Your task to perform on an android device: Open Maps and search for coffee Image 0: 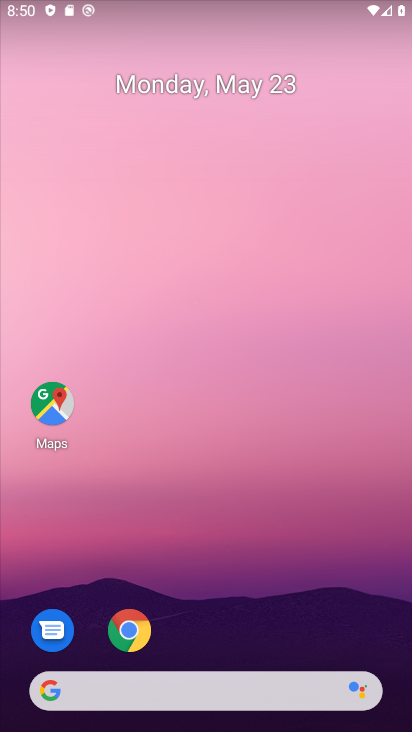
Step 0: click (54, 406)
Your task to perform on an android device: Open Maps and search for coffee Image 1: 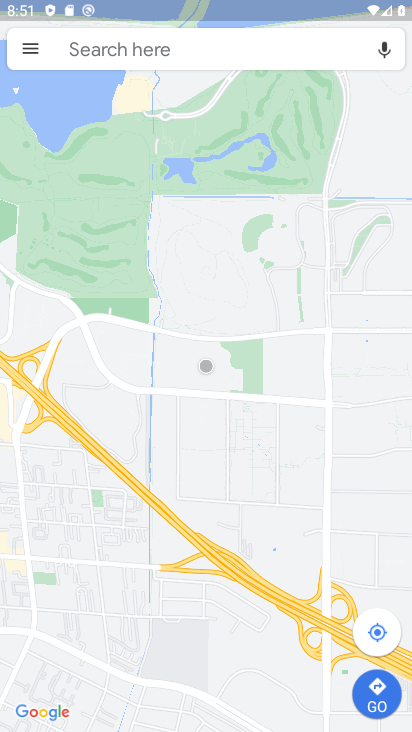
Step 1: press home button
Your task to perform on an android device: Open Maps and search for coffee Image 2: 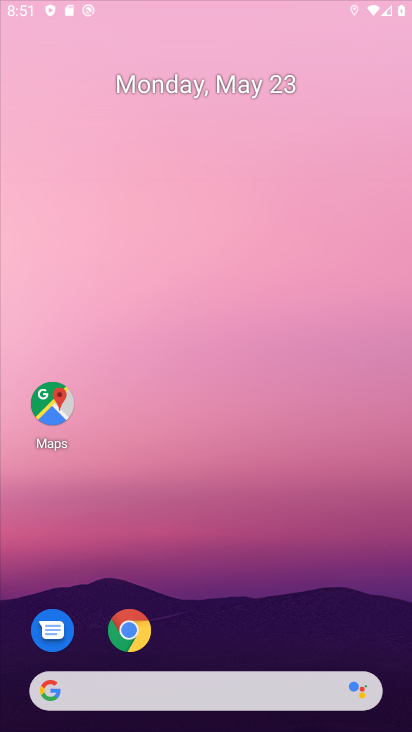
Step 2: click (139, 50)
Your task to perform on an android device: Open Maps and search for coffee Image 3: 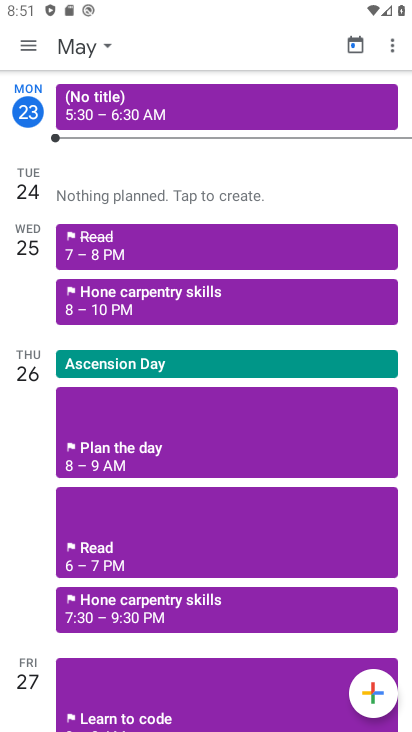
Step 3: click (55, 407)
Your task to perform on an android device: Open Maps and search for coffee Image 4: 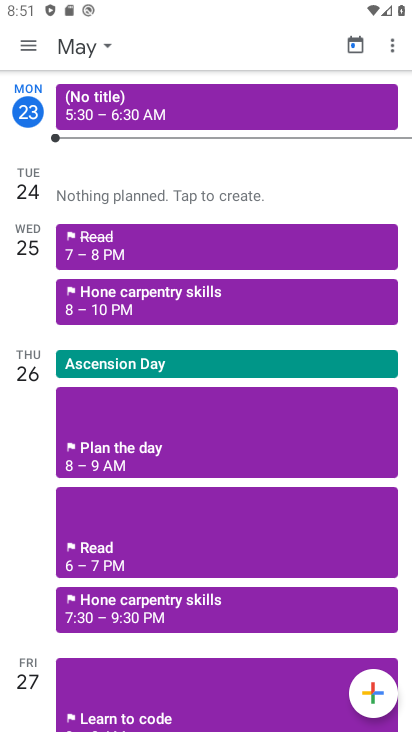
Step 4: press home button
Your task to perform on an android device: Open Maps and search for coffee Image 5: 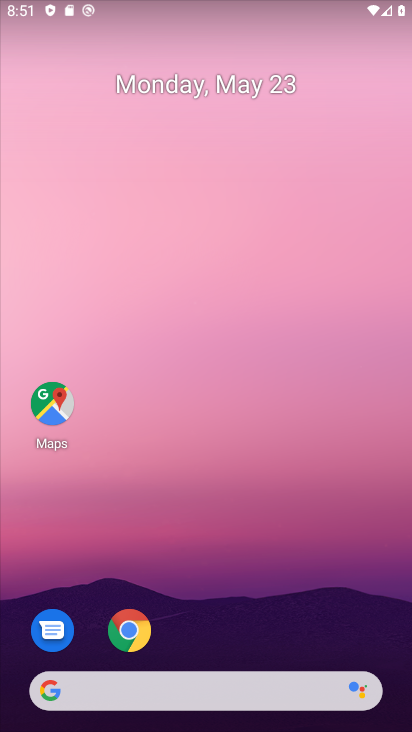
Step 5: click (51, 414)
Your task to perform on an android device: Open Maps and search for coffee Image 6: 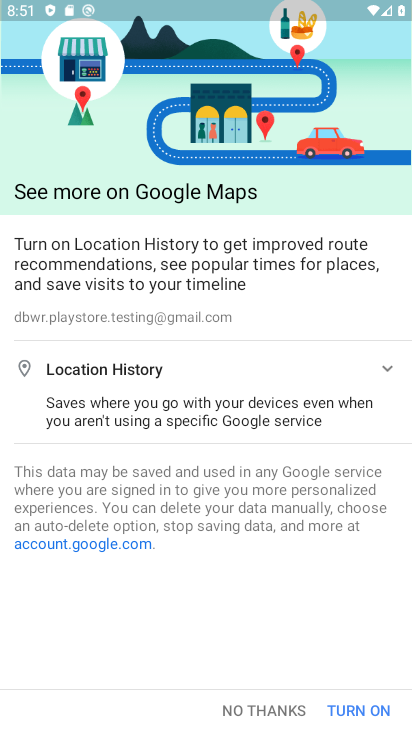
Step 6: click (376, 721)
Your task to perform on an android device: Open Maps and search for coffee Image 7: 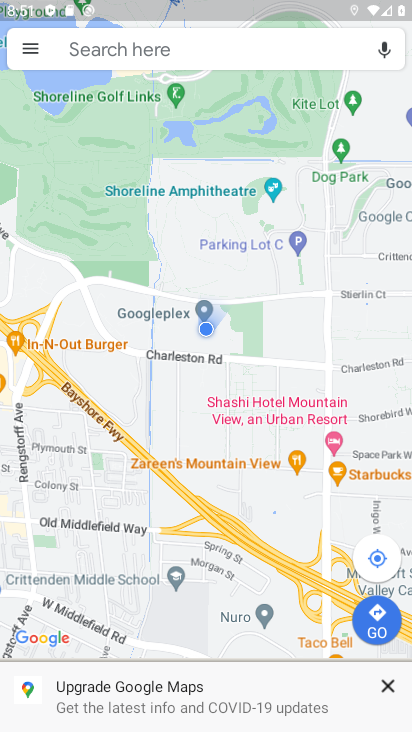
Step 7: click (170, 46)
Your task to perform on an android device: Open Maps and search for coffee Image 8: 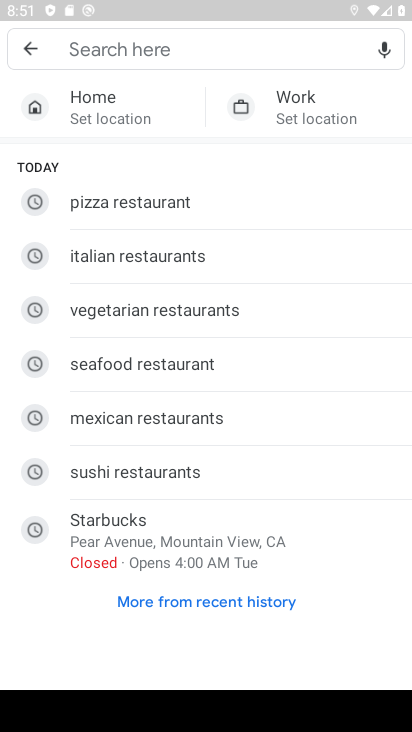
Step 8: type "coffee"
Your task to perform on an android device: Open Maps and search for coffee Image 9: 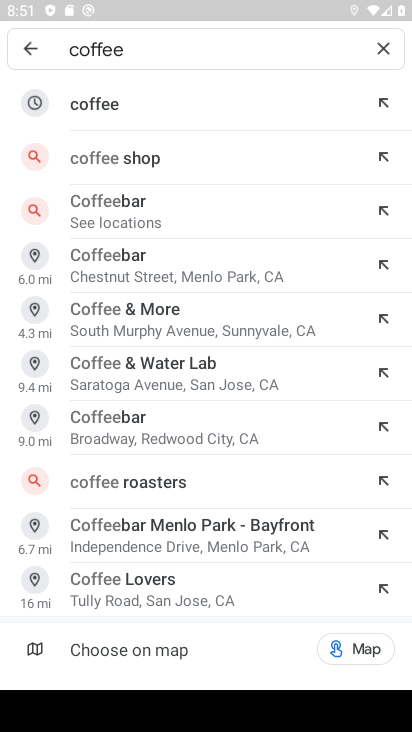
Step 9: click (104, 107)
Your task to perform on an android device: Open Maps and search for coffee Image 10: 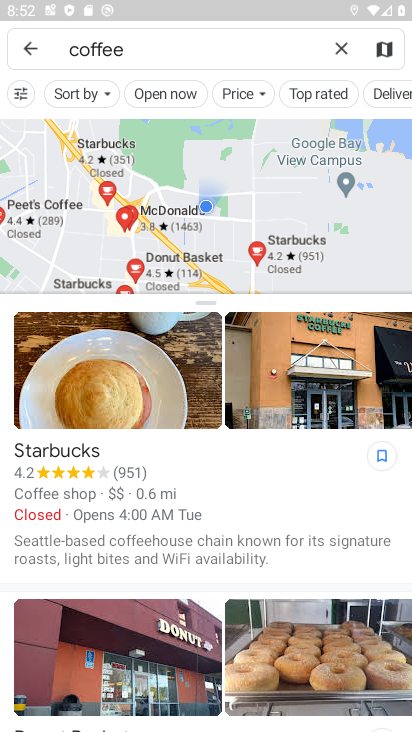
Step 10: task complete